Your task to perform on an android device: turn off translation in the chrome app Image 0: 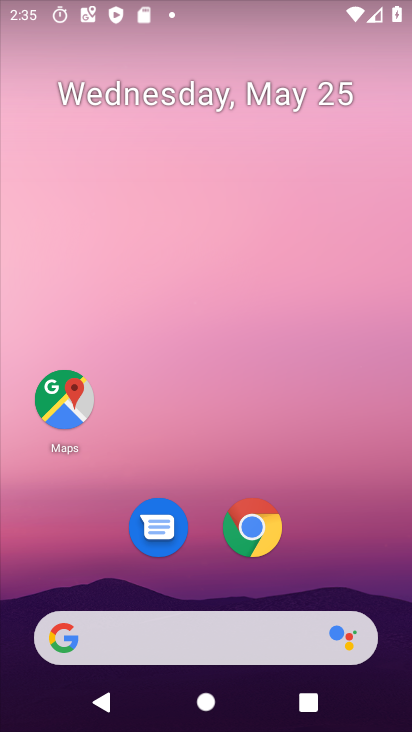
Step 0: press home button
Your task to perform on an android device: turn off translation in the chrome app Image 1: 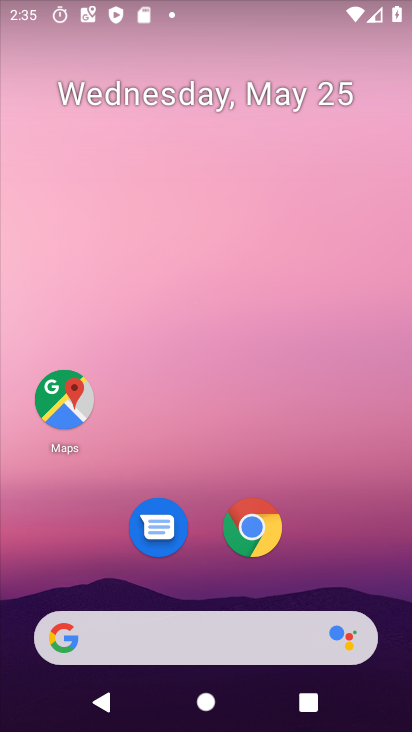
Step 1: click (346, 54)
Your task to perform on an android device: turn off translation in the chrome app Image 2: 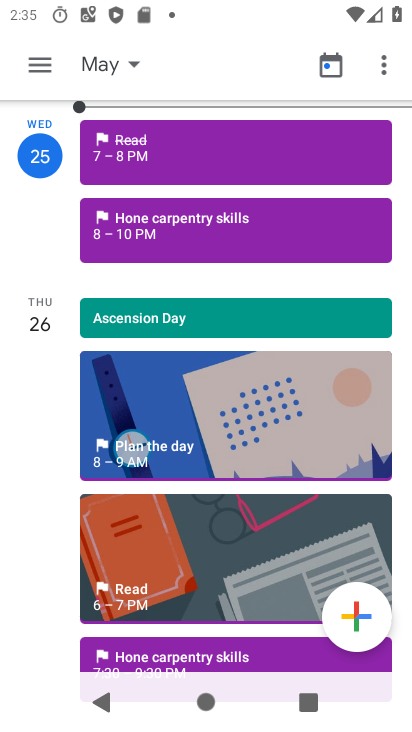
Step 2: drag from (238, 309) to (272, 46)
Your task to perform on an android device: turn off translation in the chrome app Image 3: 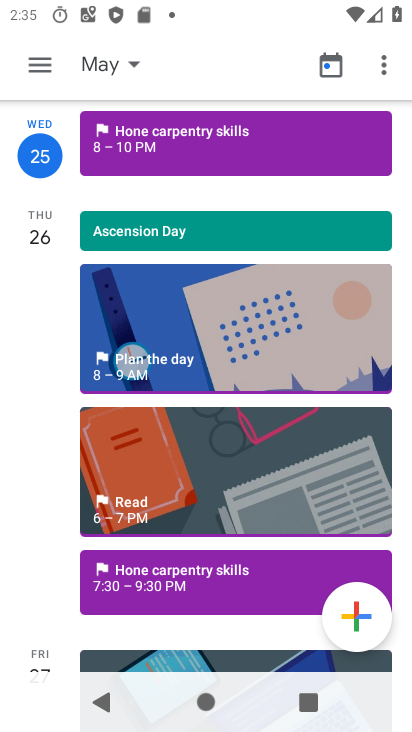
Step 3: press home button
Your task to perform on an android device: turn off translation in the chrome app Image 4: 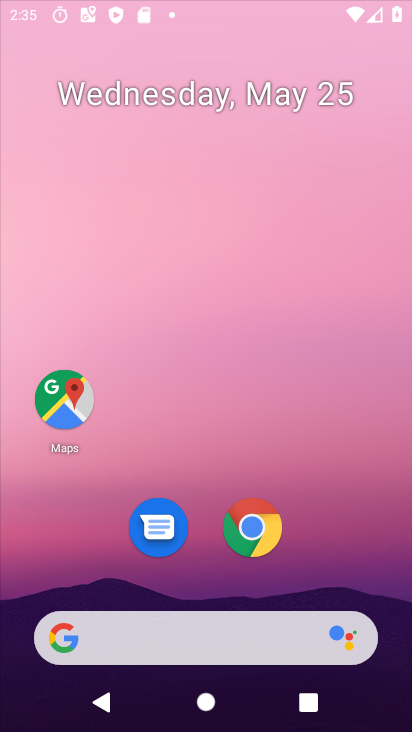
Step 4: drag from (175, 625) to (284, 100)
Your task to perform on an android device: turn off translation in the chrome app Image 5: 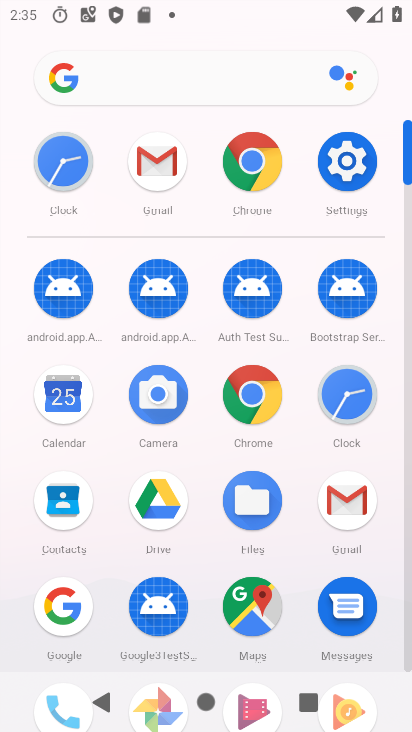
Step 5: click (254, 394)
Your task to perform on an android device: turn off translation in the chrome app Image 6: 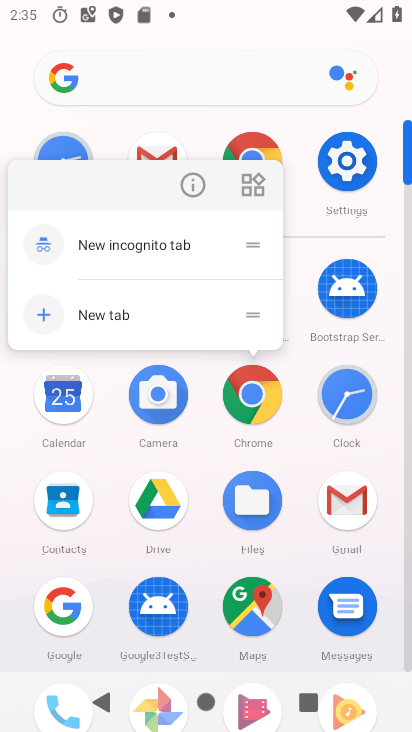
Step 6: click (193, 178)
Your task to perform on an android device: turn off translation in the chrome app Image 7: 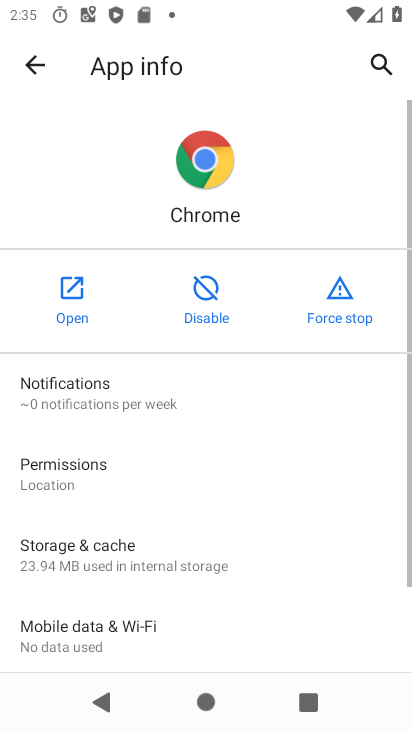
Step 7: click (70, 282)
Your task to perform on an android device: turn off translation in the chrome app Image 8: 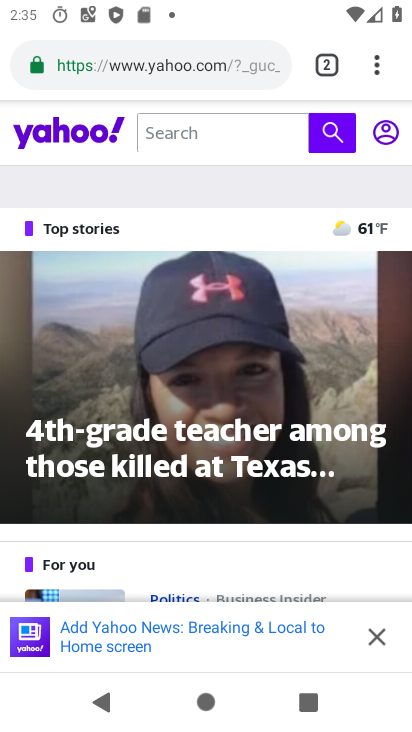
Step 8: click (379, 62)
Your task to perform on an android device: turn off translation in the chrome app Image 9: 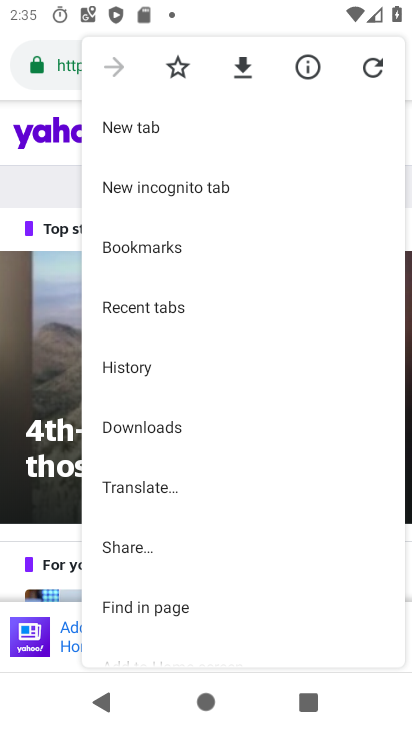
Step 9: drag from (192, 563) to (322, 79)
Your task to perform on an android device: turn off translation in the chrome app Image 10: 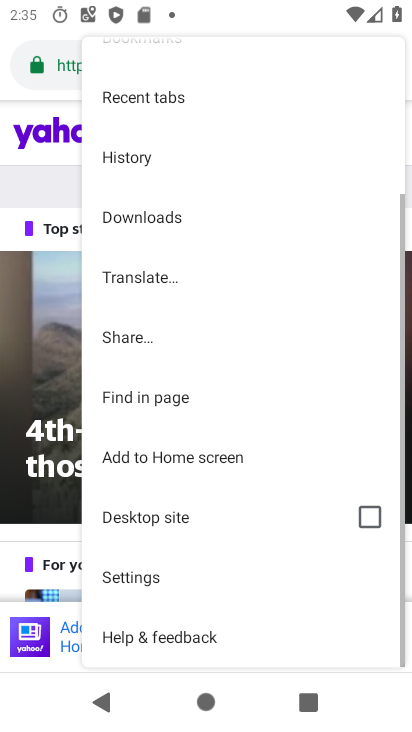
Step 10: click (178, 576)
Your task to perform on an android device: turn off translation in the chrome app Image 11: 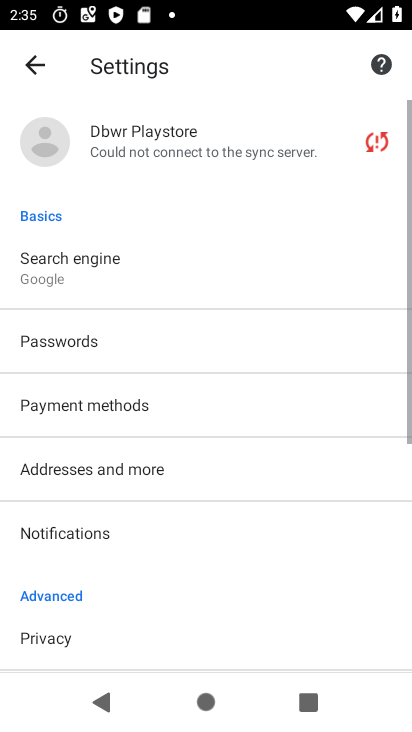
Step 11: drag from (162, 623) to (222, 215)
Your task to perform on an android device: turn off translation in the chrome app Image 12: 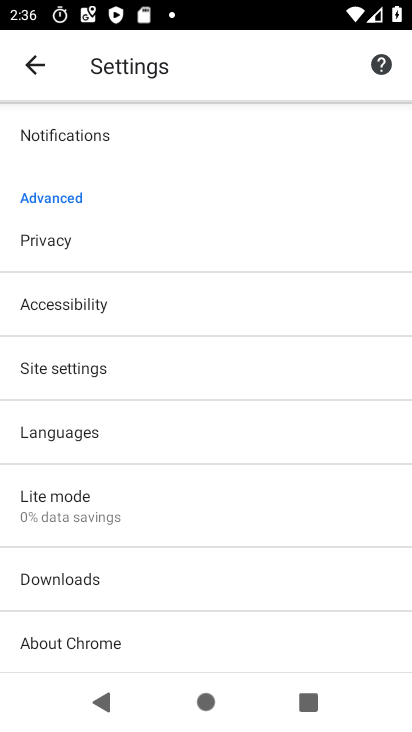
Step 12: click (167, 367)
Your task to perform on an android device: turn off translation in the chrome app Image 13: 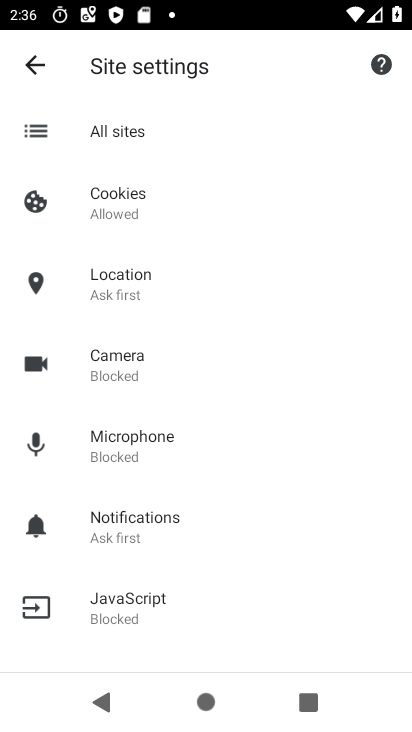
Step 13: click (43, 61)
Your task to perform on an android device: turn off translation in the chrome app Image 14: 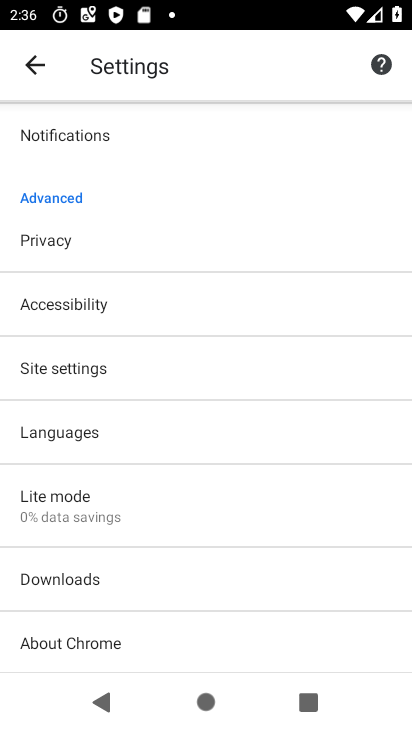
Step 14: click (99, 432)
Your task to perform on an android device: turn off translation in the chrome app Image 15: 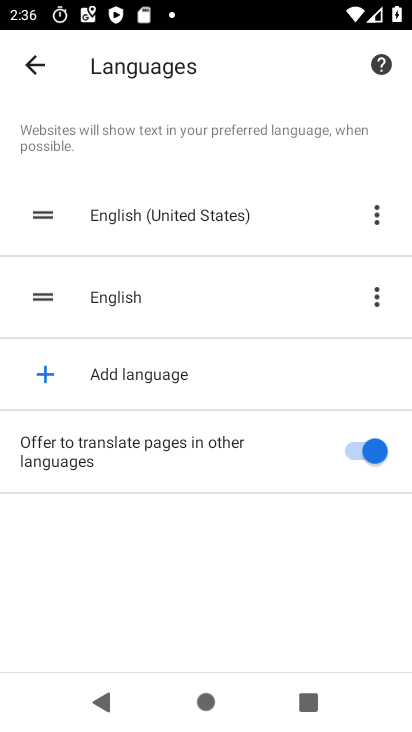
Step 15: click (365, 449)
Your task to perform on an android device: turn off translation in the chrome app Image 16: 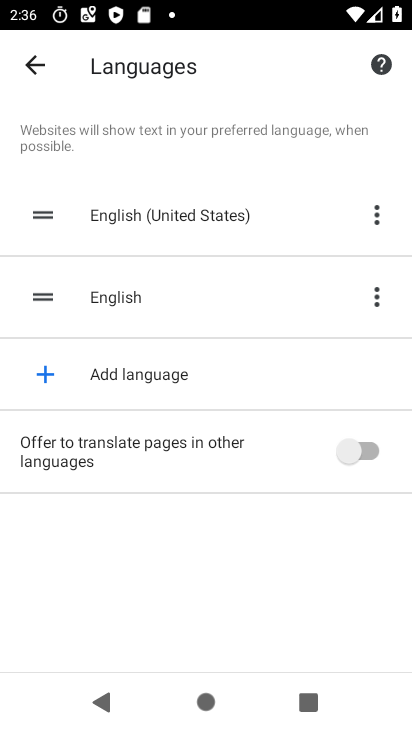
Step 16: task complete